Your task to perform on an android device: Turn off the flashlight Image 0: 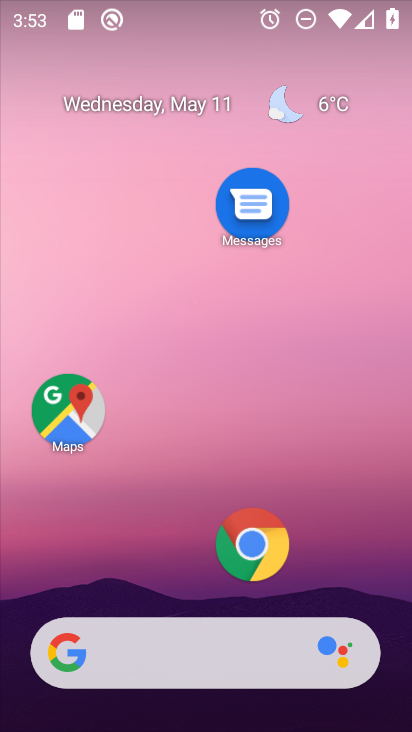
Step 0: drag from (164, 533) to (297, 6)
Your task to perform on an android device: Turn off the flashlight Image 1: 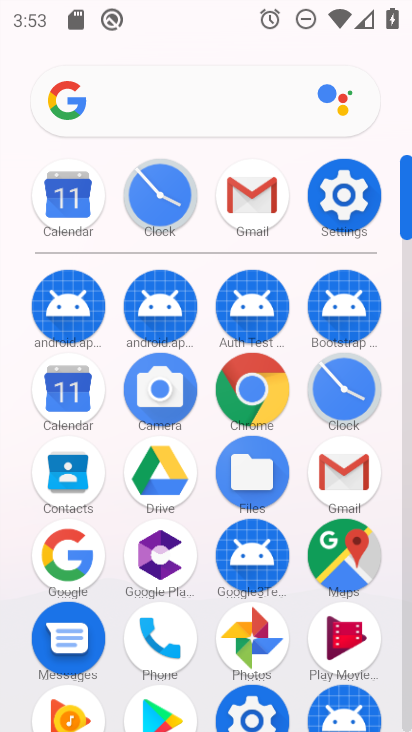
Step 1: click (353, 191)
Your task to perform on an android device: Turn off the flashlight Image 2: 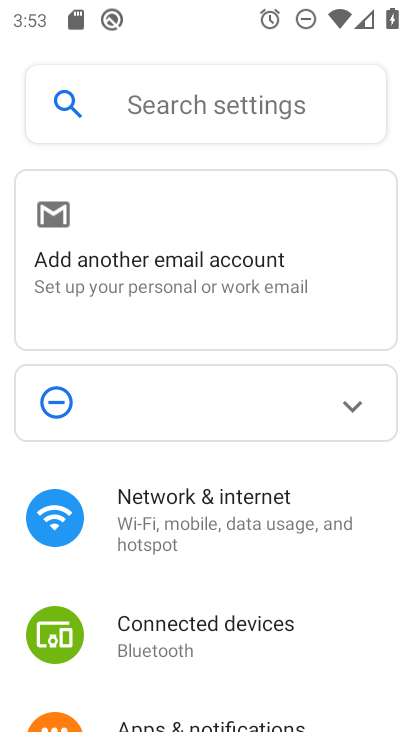
Step 2: click (138, 106)
Your task to perform on an android device: Turn off the flashlight Image 3: 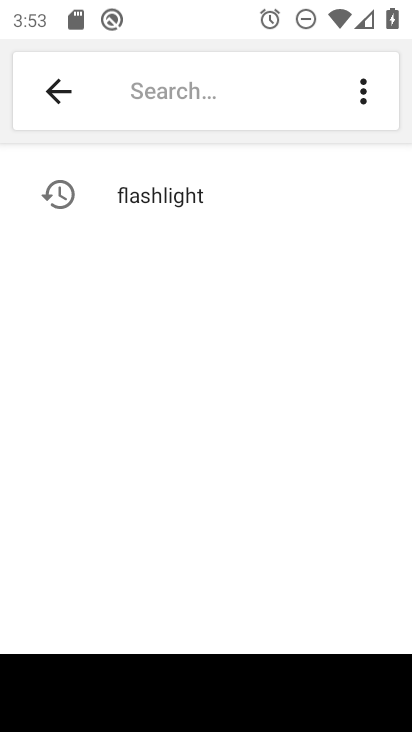
Step 3: type "flas"
Your task to perform on an android device: Turn off the flashlight Image 4: 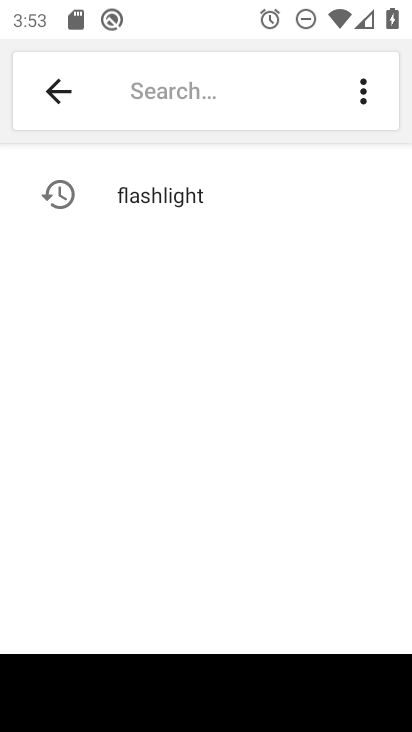
Step 4: click (142, 181)
Your task to perform on an android device: Turn off the flashlight Image 5: 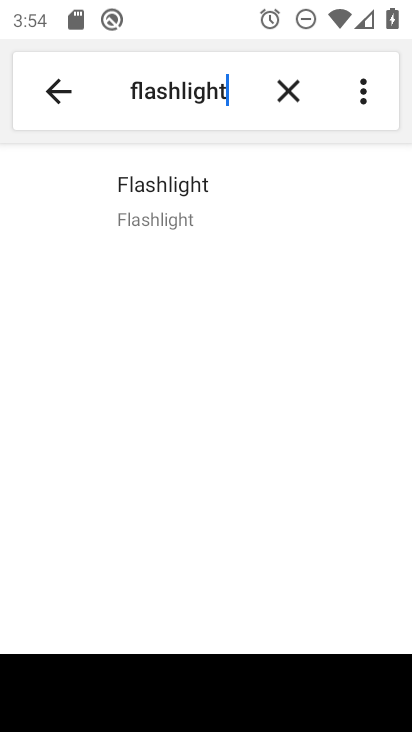
Step 5: click (191, 203)
Your task to perform on an android device: Turn off the flashlight Image 6: 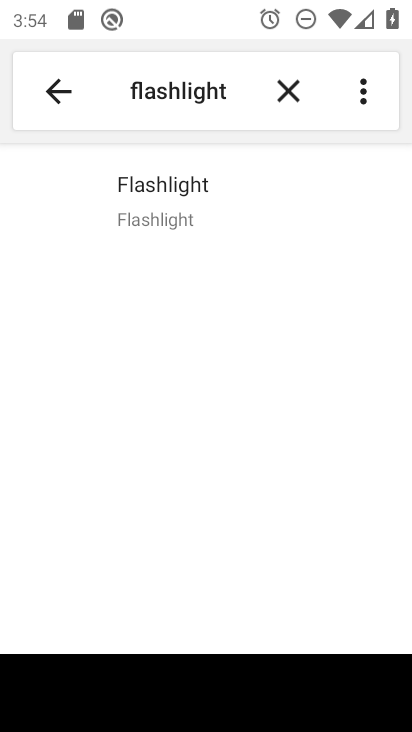
Step 6: task complete